Your task to perform on an android device: Open Reddit.com Image 0: 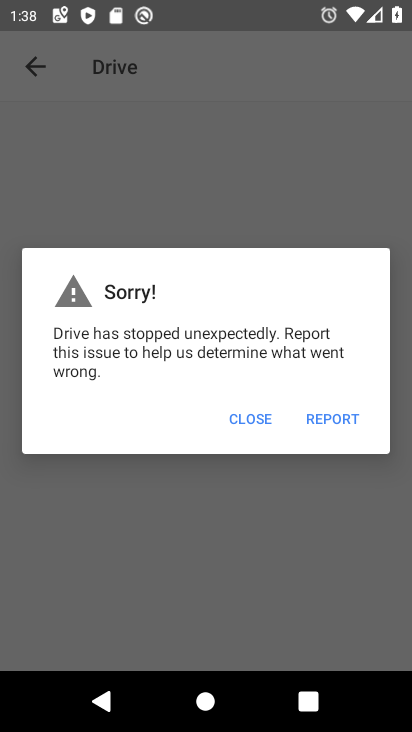
Step 0: press home button
Your task to perform on an android device: Open Reddit.com Image 1: 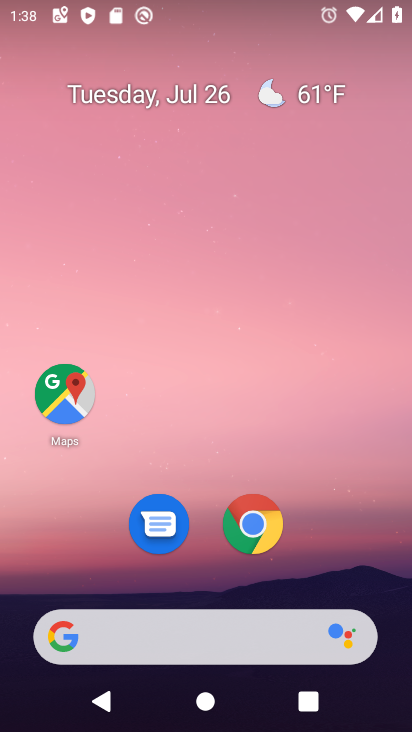
Step 1: click (243, 541)
Your task to perform on an android device: Open Reddit.com Image 2: 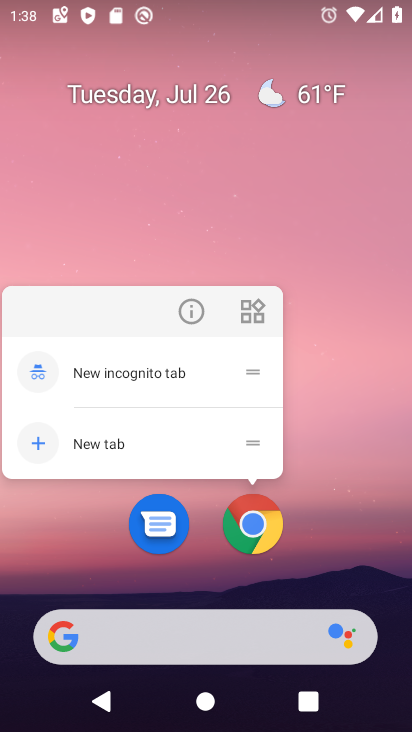
Step 2: click (262, 534)
Your task to perform on an android device: Open Reddit.com Image 3: 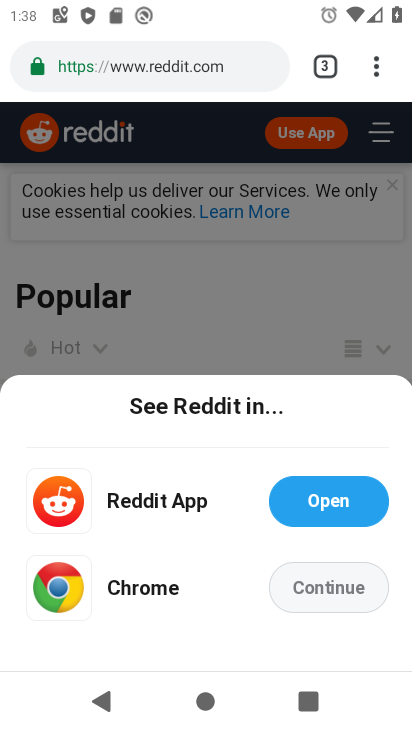
Step 3: task complete